Your task to perform on an android device: turn off notifications in google photos Image 0: 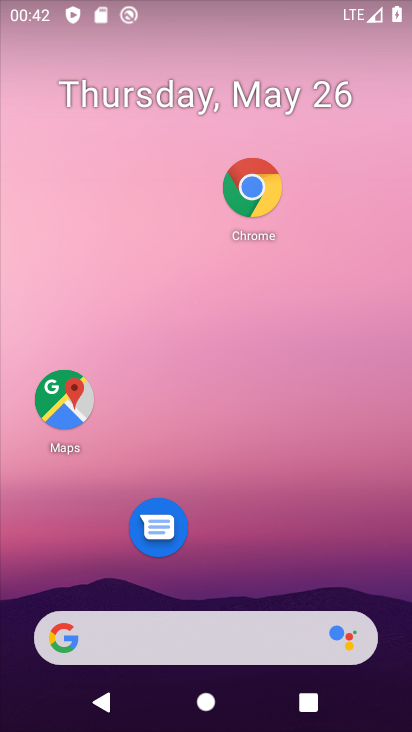
Step 0: drag from (197, 560) to (177, 132)
Your task to perform on an android device: turn off notifications in google photos Image 1: 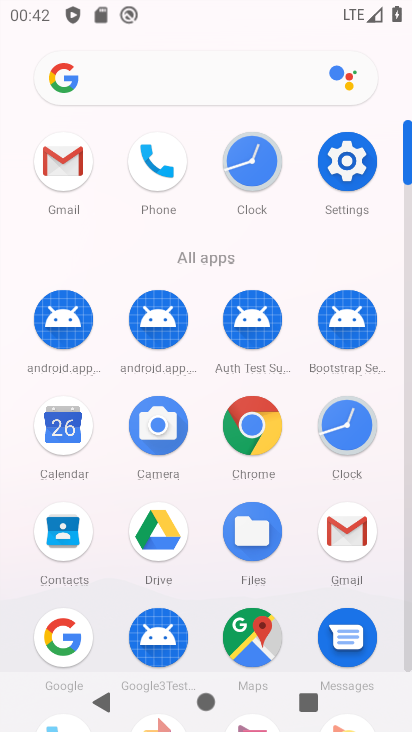
Step 1: drag from (113, 595) to (127, 230)
Your task to perform on an android device: turn off notifications in google photos Image 2: 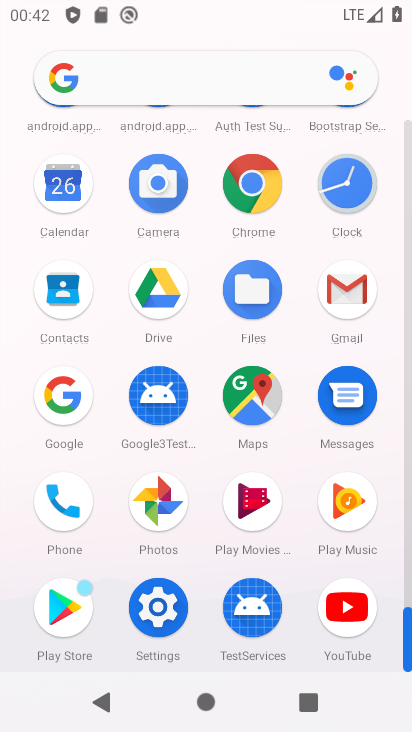
Step 2: drag from (194, 185) to (209, 578)
Your task to perform on an android device: turn off notifications in google photos Image 3: 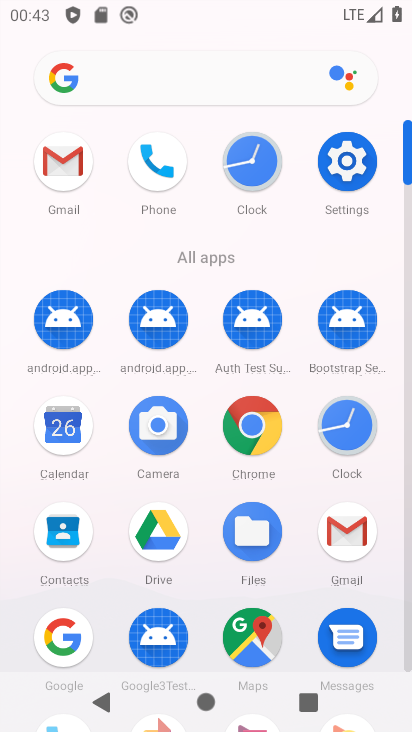
Step 3: drag from (217, 556) to (201, 224)
Your task to perform on an android device: turn off notifications in google photos Image 4: 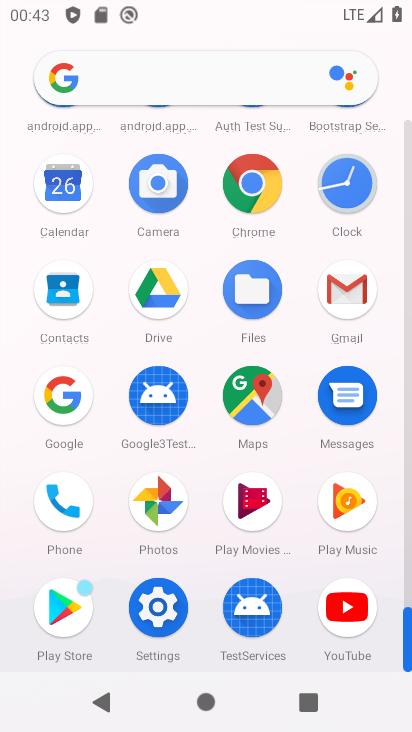
Step 4: click (140, 500)
Your task to perform on an android device: turn off notifications in google photos Image 5: 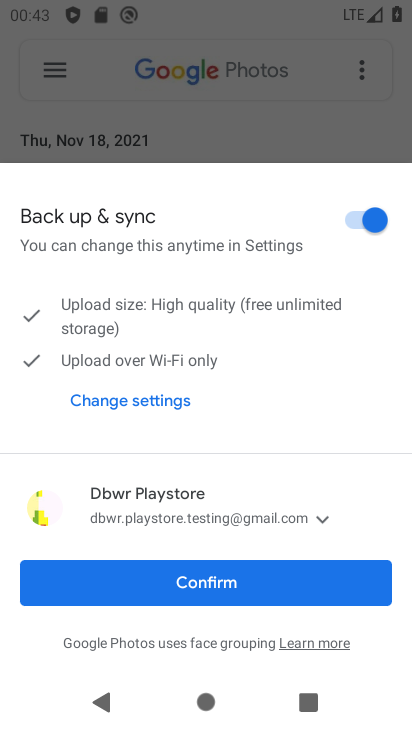
Step 5: click (127, 400)
Your task to perform on an android device: turn off notifications in google photos Image 6: 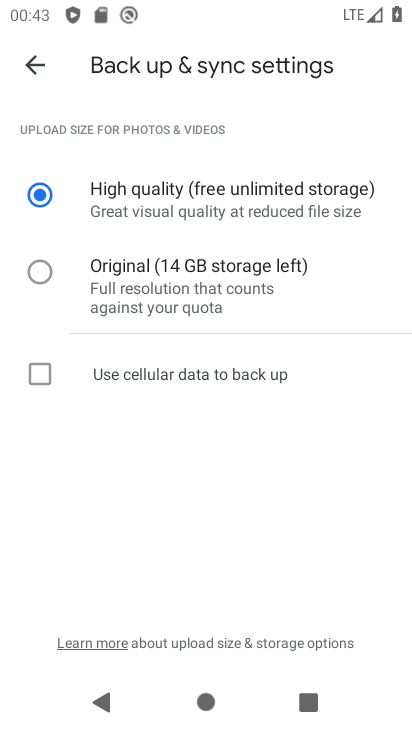
Step 6: drag from (270, 478) to (241, 192)
Your task to perform on an android device: turn off notifications in google photos Image 7: 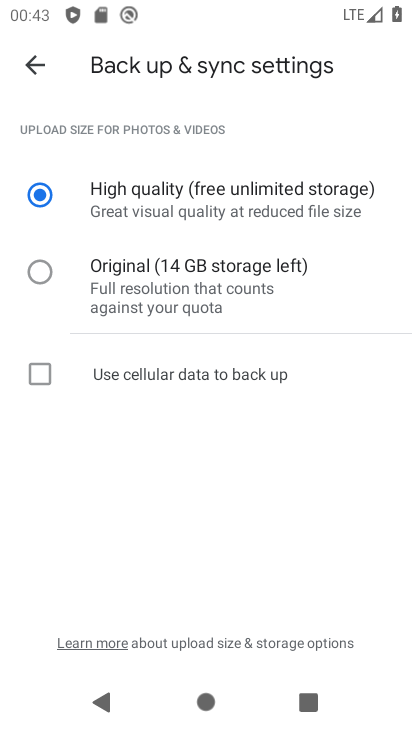
Step 7: click (43, 64)
Your task to perform on an android device: turn off notifications in google photos Image 8: 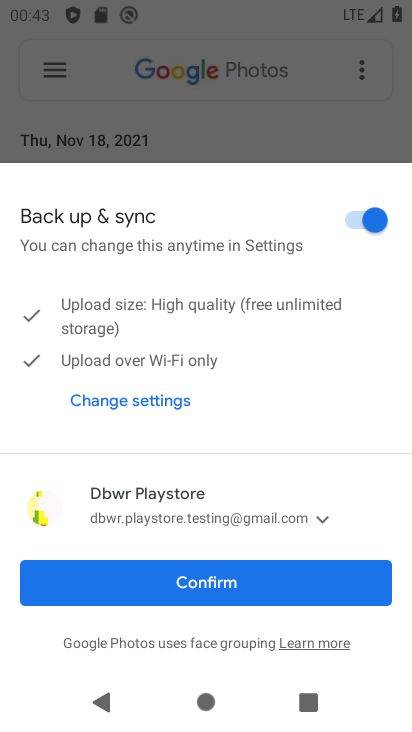
Step 8: click (117, 584)
Your task to perform on an android device: turn off notifications in google photos Image 9: 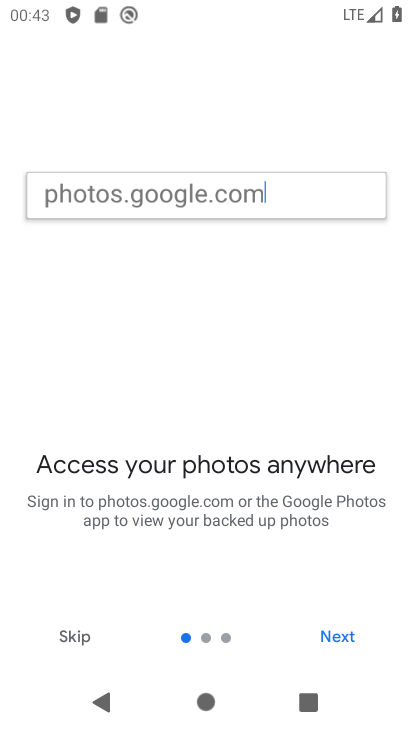
Step 9: click (332, 636)
Your task to perform on an android device: turn off notifications in google photos Image 10: 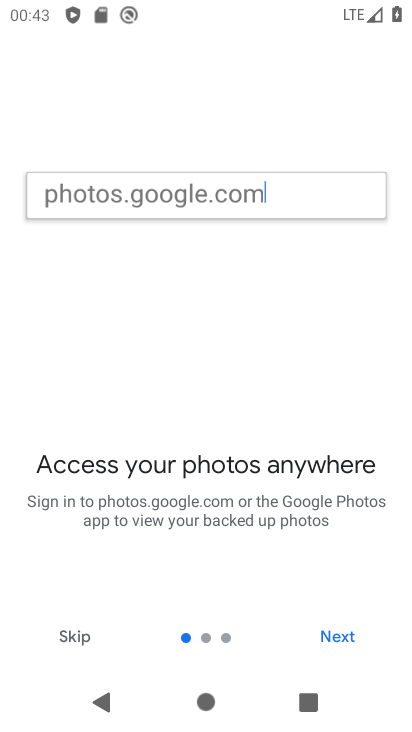
Step 10: click (332, 636)
Your task to perform on an android device: turn off notifications in google photos Image 11: 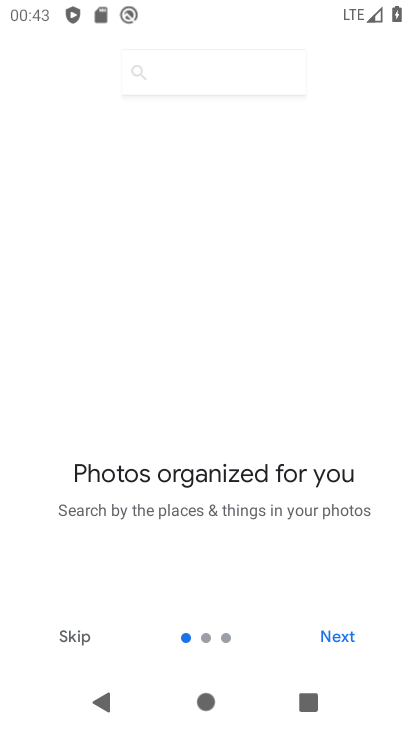
Step 11: click (332, 636)
Your task to perform on an android device: turn off notifications in google photos Image 12: 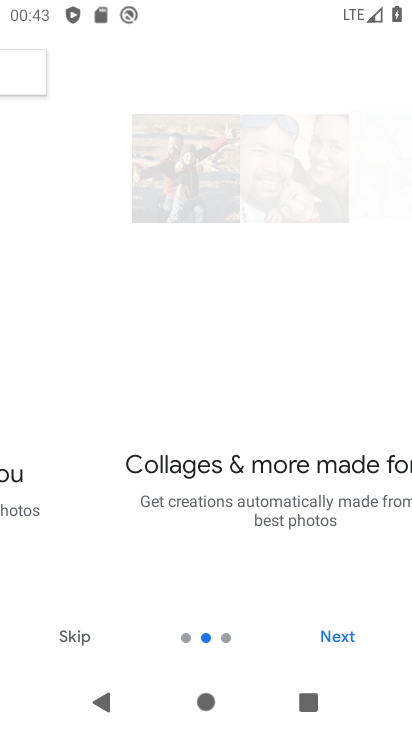
Step 12: click (332, 636)
Your task to perform on an android device: turn off notifications in google photos Image 13: 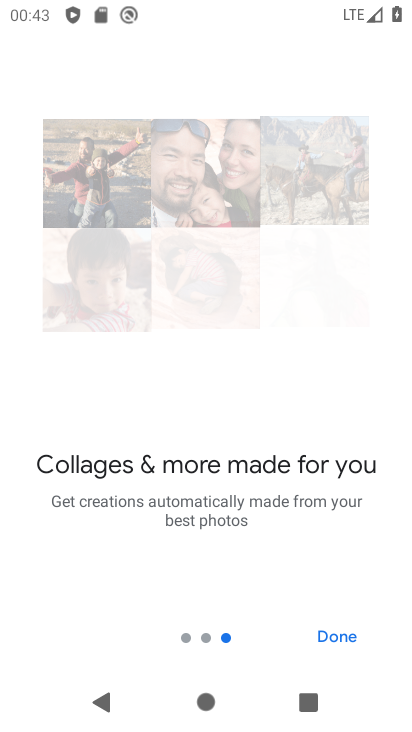
Step 13: click (332, 636)
Your task to perform on an android device: turn off notifications in google photos Image 14: 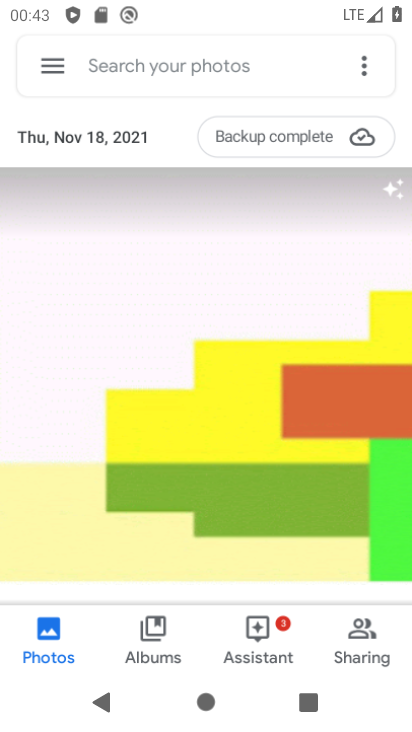
Step 14: click (332, 636)
Your task to perform on an android device: turn off notifications in google photos Image 15: 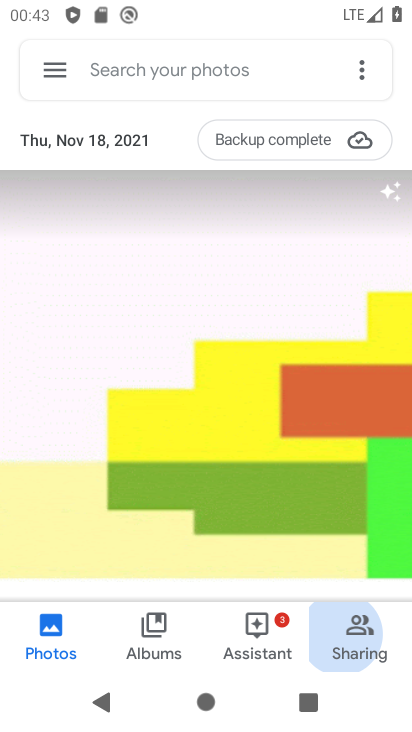
Step 15: click (332, 636)
Your task to perform on an android device: turn off notifications in google photos Image 16: 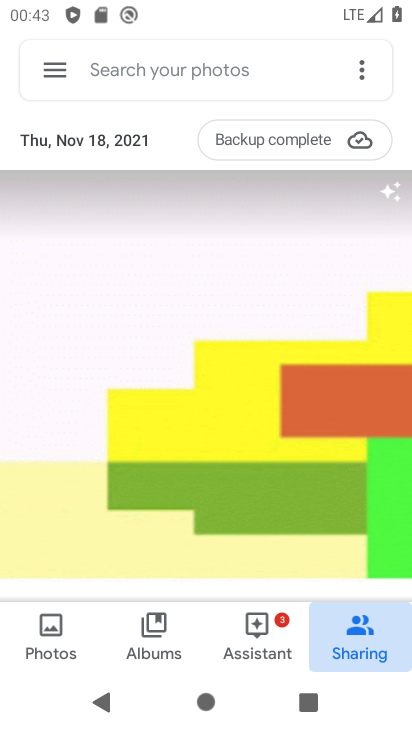
Step 16: click (332, 636)
Your task to perform on an android device: turn off notifications in google photos Image 17: 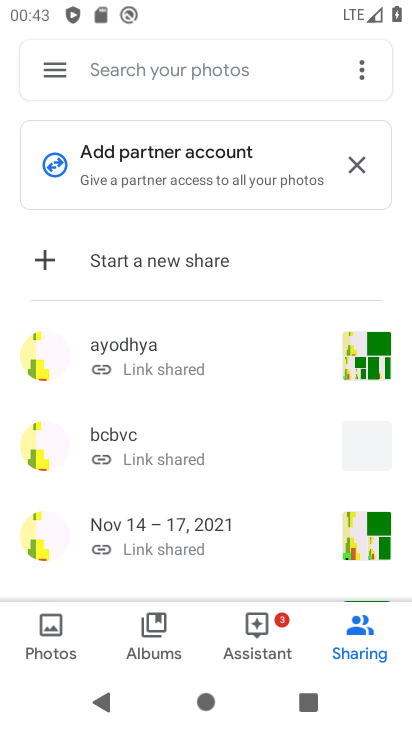
Step 17: click (57, 78)
Your task to perform on an android device: turn off notifications in google photos Image 18: 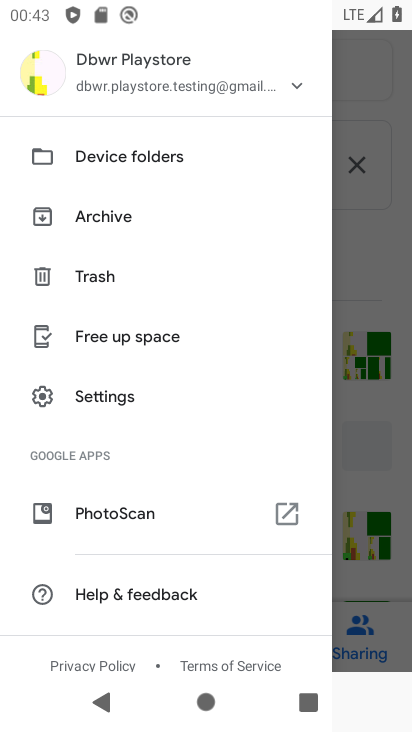
Step 18: click (83, 413)
Your task to perform on an android device: turn off notifications in google photos Image 19: 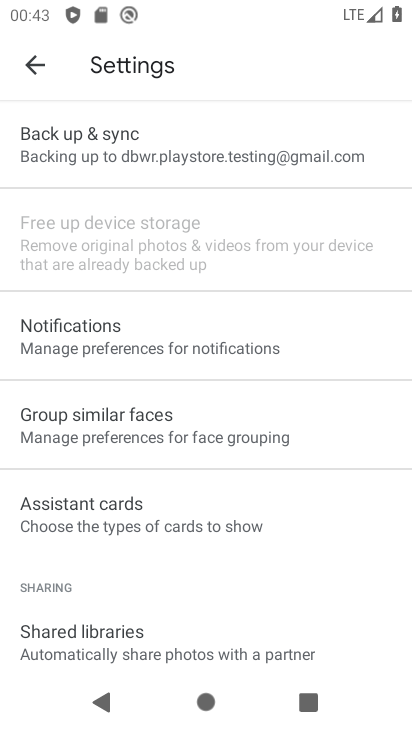
Step 19: click (87, 355)
Your task to perform on an android device: turn off notifications in google photos Image 20: 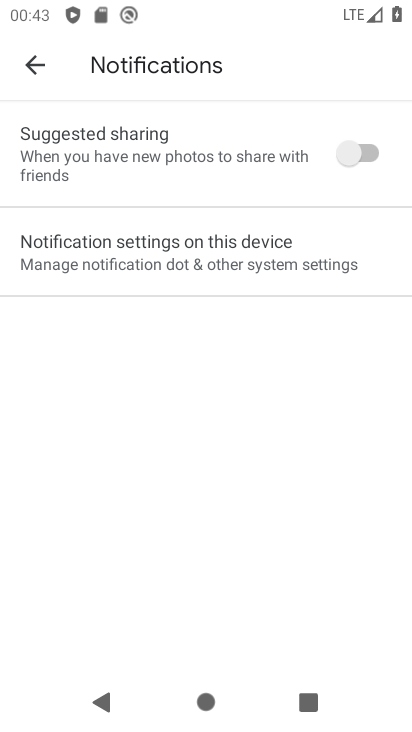
Step 20: click (160, 256)
Your task to perform on an android device: turn off notifications in google photos Image 21: 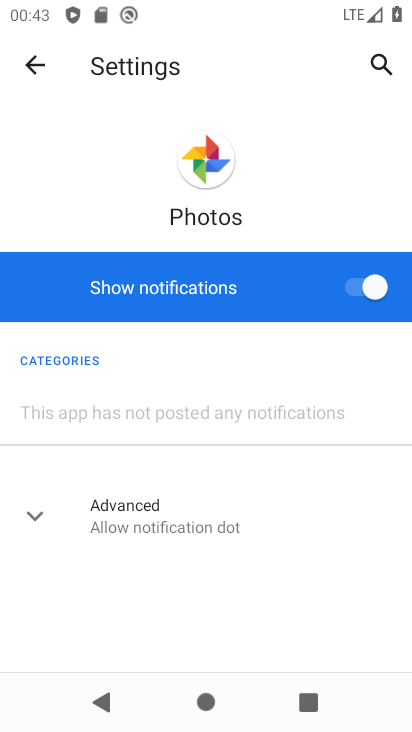
Step 21: click (369, 293)
Your task to perform on an android device: turn off notifications in google photos Image 22: 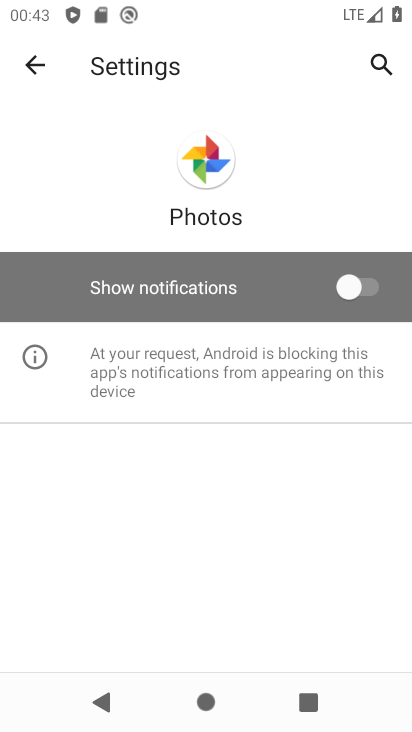
Step 22: task complete